Your task to perform on an android device: turn off airplane mode Image 0: 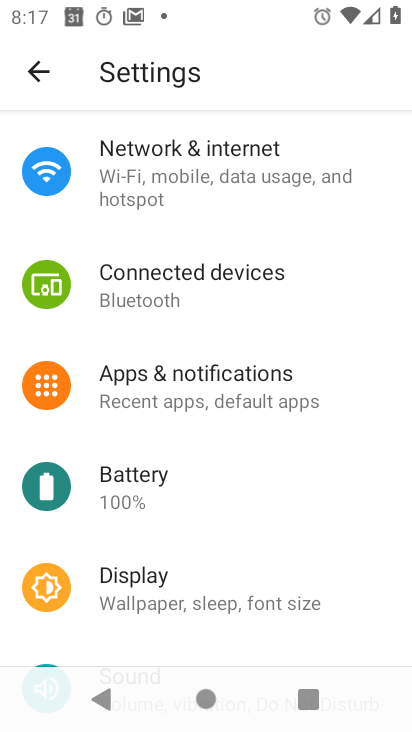
Step 0: press home button
Your task to perform on an android device: turn off airplane mode Image 1: 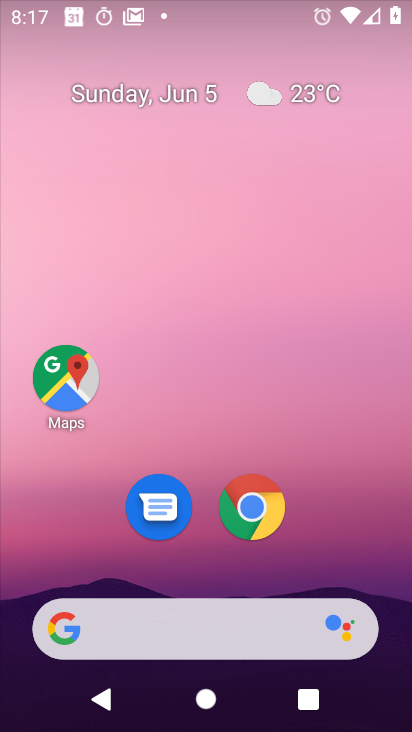
Step 1: drag from (239, 642) to (200, 47)
Your task to perform on an android device: turn off airplane mode Image 2: 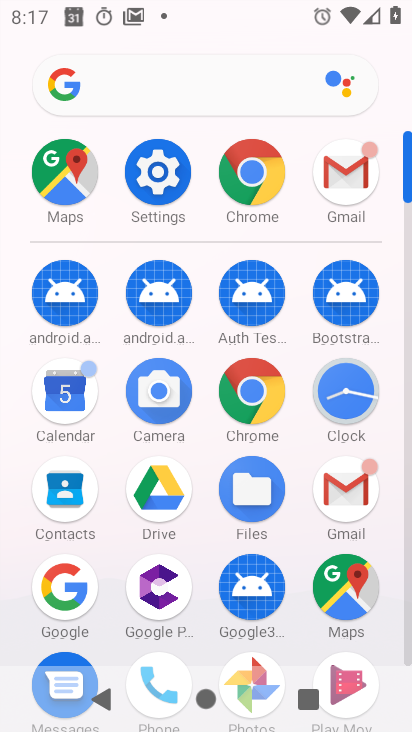
Step 2: click (151, 175)
Your task to perform on an android device: turn off airplane mode Image 3: 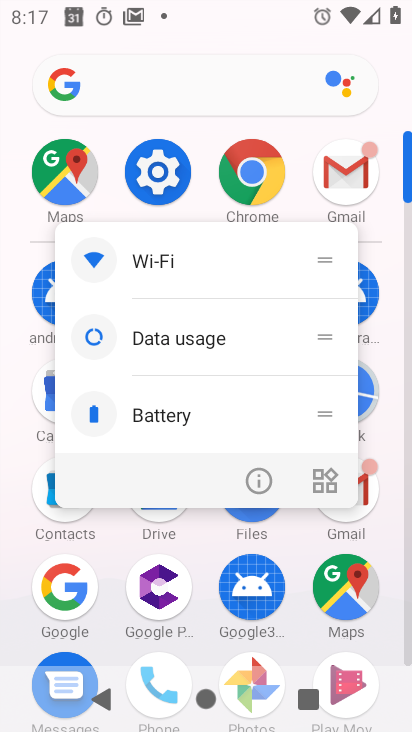
Step 3: click (151, 175)
Your task to perform on an android device: turn off airplane mode Image 4: 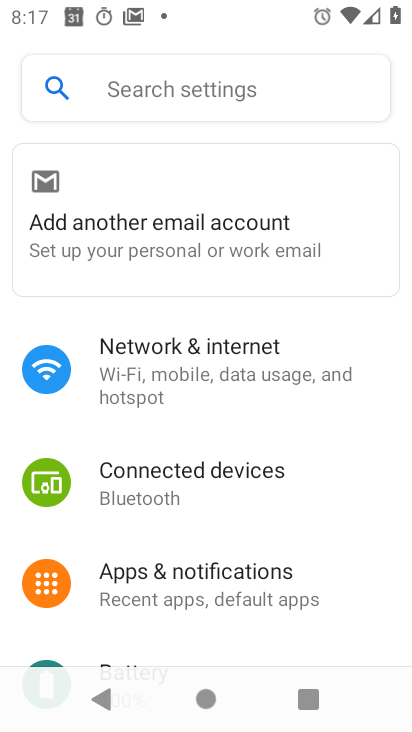
Step 4: click (202, 373)
Your task to perform on an android device: turn off airplane mode Image 5: 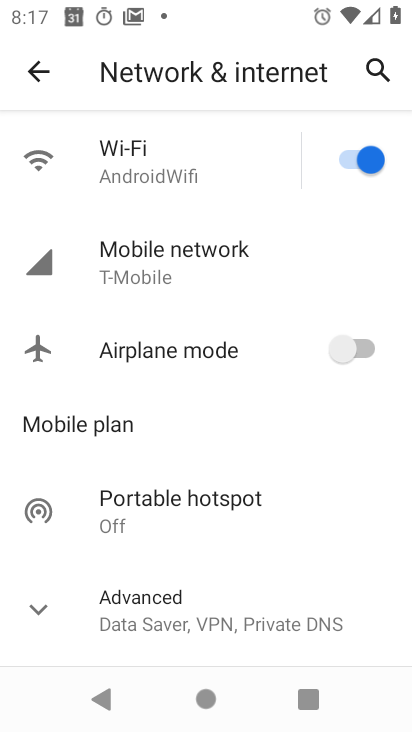
Step 5: click (342, 355)
Your task to perform on an android device: turn off airplane mode Image 6: 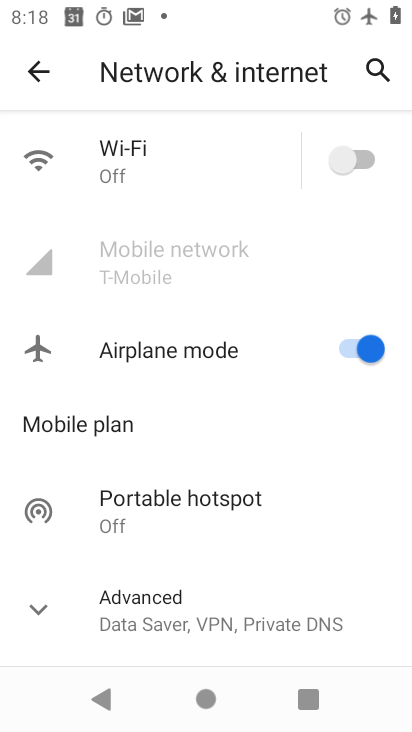
Step 6: click (342, 354)
Your task to perform on an android device: turn off airplane mode Image 7: 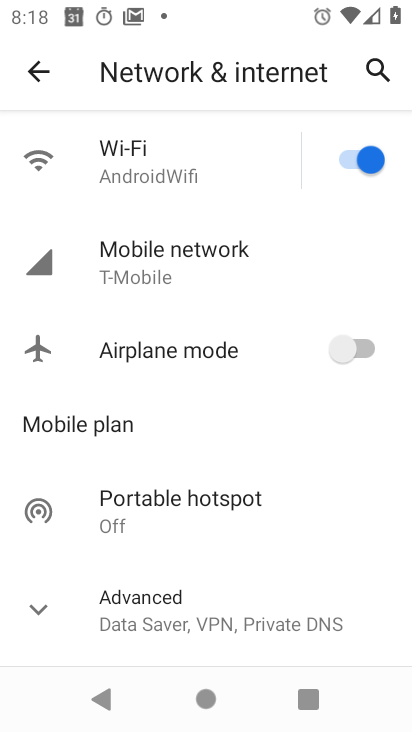
Step 7: task complete